Your task to perform on an android device: turn on notifications settings in the gmail app Image 0: 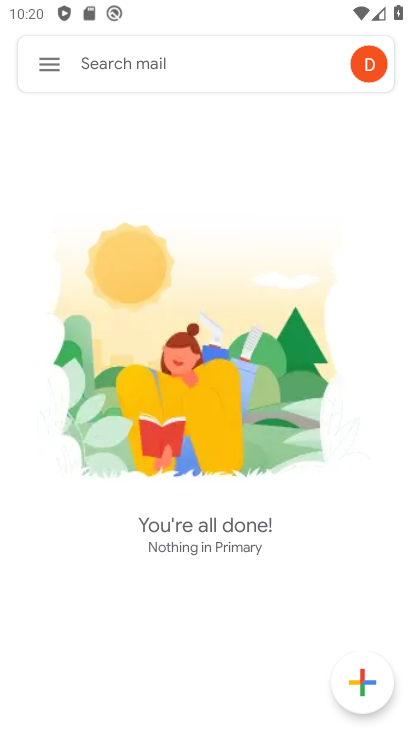
Step 0: click (61, 68)
Your task to perform on an android device: turn on notifications settings in the gmail app Image 1: 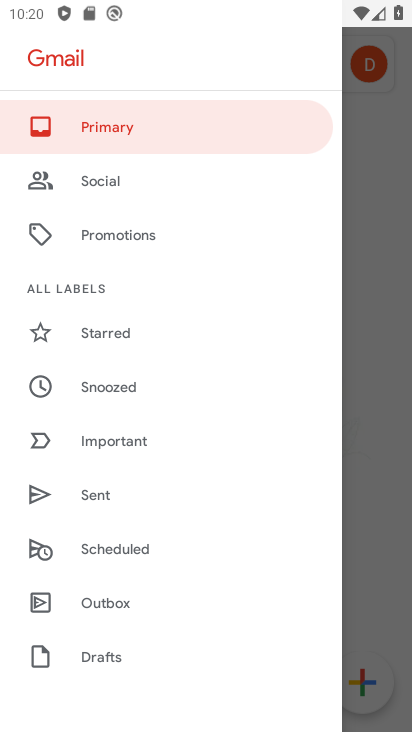
Step 1: drag from (238, 519) to (241, 445)
Your task to perform on an android device: turn on notifications settings in the gmail app Image 2: 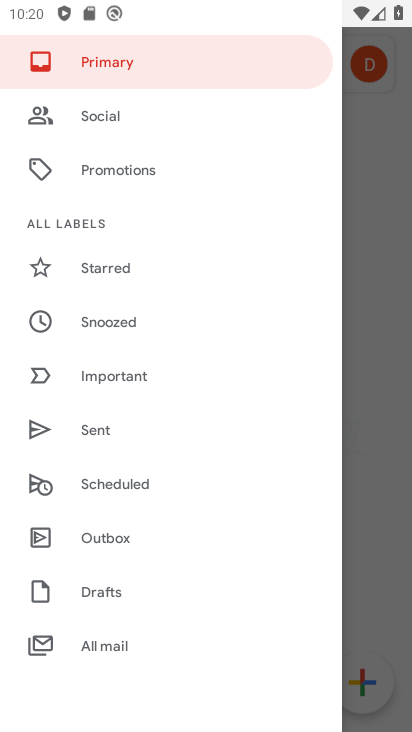
Step 2: drag from (247, 529) to (247, 456)
Your task to perform on an android device: turn on notifications settings in the gmail app Image 3: 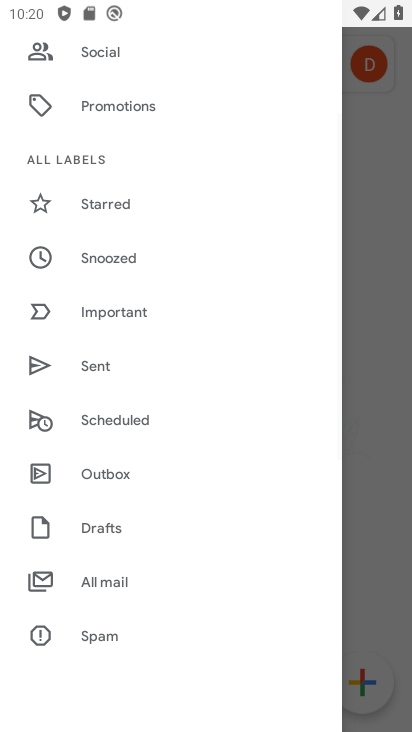
Step 3: drag from (247, 539) to (244, 459)
Your task to perform on an android device: turn on notifications settings in the gmail app Image 4: 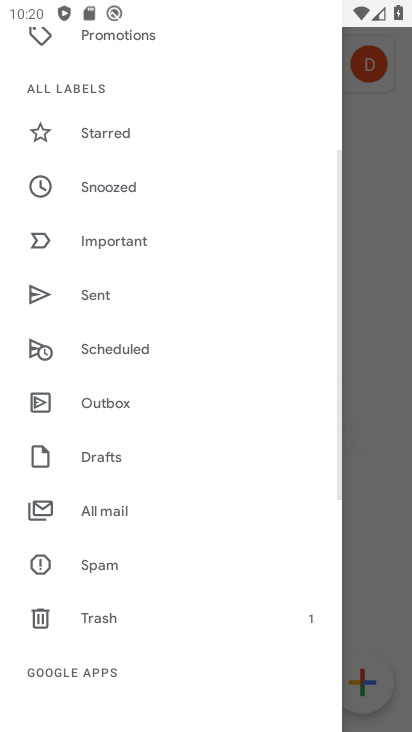
Step 4: drag from (242, 562) to (242, 494)
Your task to perform on an android device: turn on notifications settings in the gmail app Image 5: 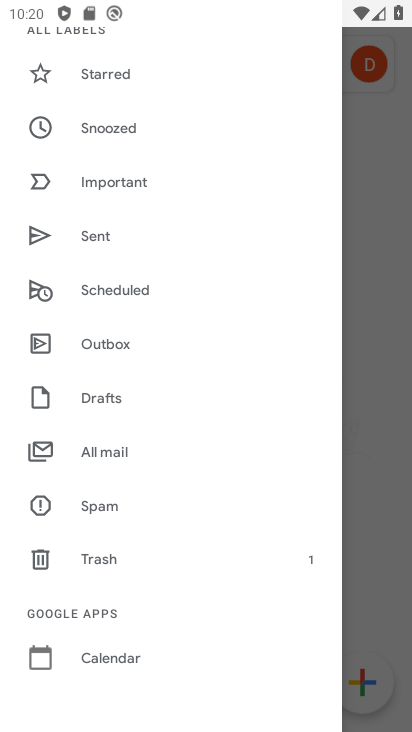
Step 5: drag from (244, 598) to (237, 499)
Your task to perform on an android device: turn on notifications settings in the gmail app Image 6: 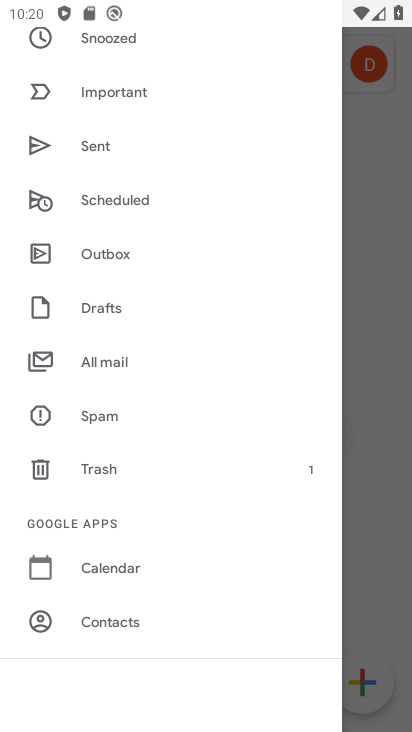
Step 6: drag from (241, 568) to (235, 497)
Your task to perform on an android device: turn on notifications settings in the gmail app Image 7: 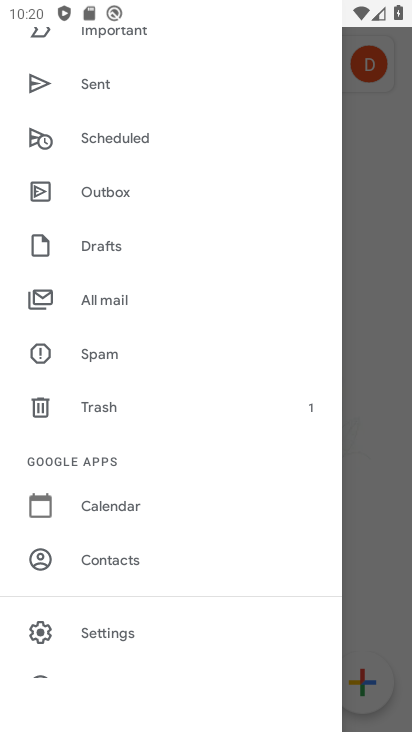
Step 7: drag from (245, 598) to (243, 498)
Your task to perform on an android device: turn on notifications settings in the gmail app Image 8: 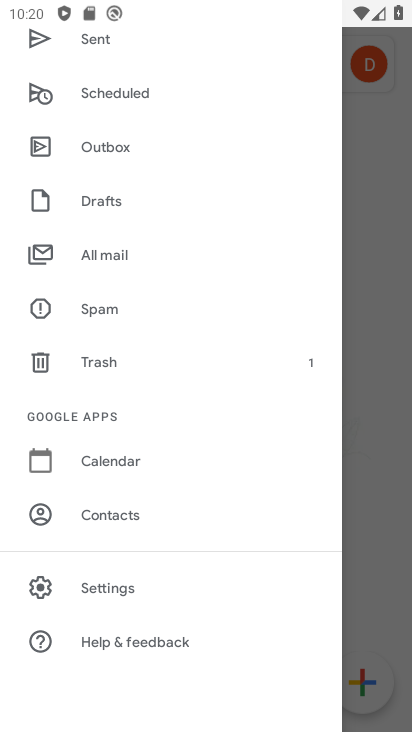
Step 8: click (185, 583)
Your task to perform on an android device: turn on notifications settings in the gmail app Image 9: 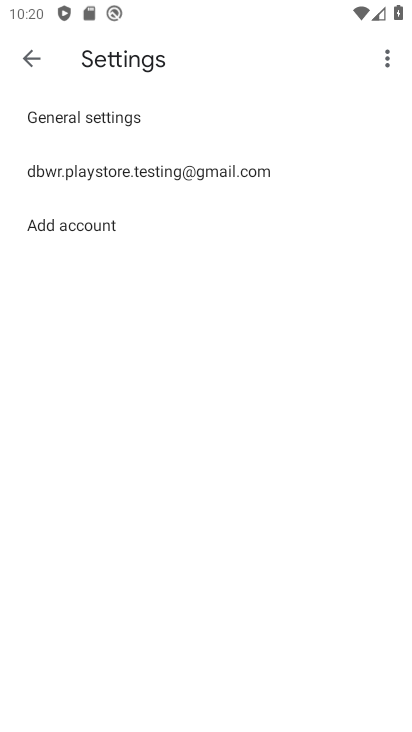
Step 9: click (223, 184)
Your task to perform on an android device: turn on notifications settings in the gmail app Image 10: 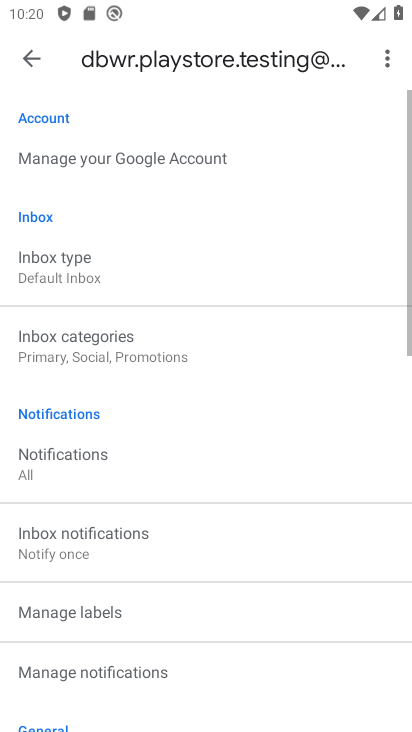
Step 10: drag from (280, 514) to (280, 462)
Your task to perform on an android device: turn on notifications settings in the gmail app Image 11: 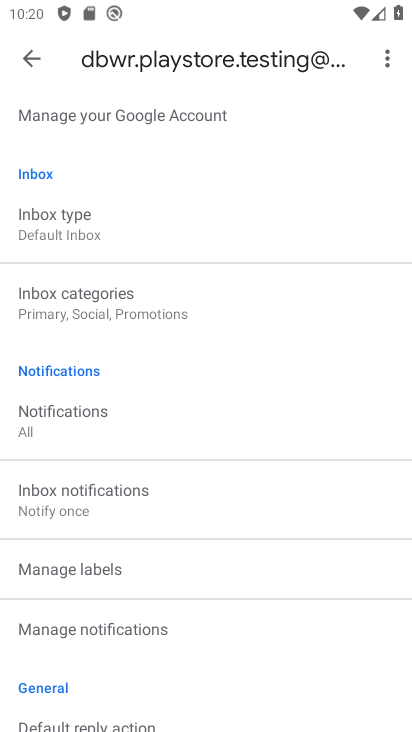
Step 11: drag from (289, 575) to (289, 499)
Your task to perform on an android device: turn on notifications settings in the gmail app Image 12: 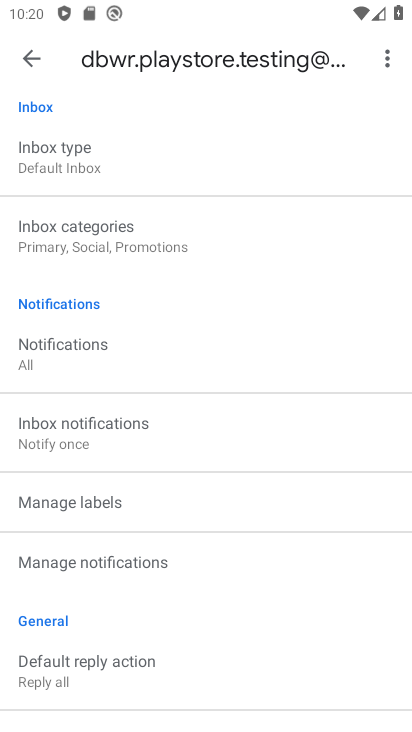
Step 12: drag from (299, 593) to (291, 494)
Your task to perform on an android device: turn on notifications settings in the gmail app Image 13: 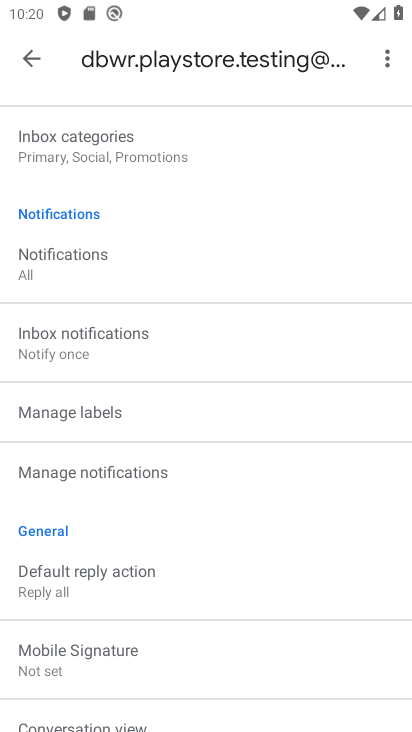
Step 13: drag from (290, 586) to (291, 525)
Your task to perform on an android device: turn on notifications settings in the gmail app Image 14: 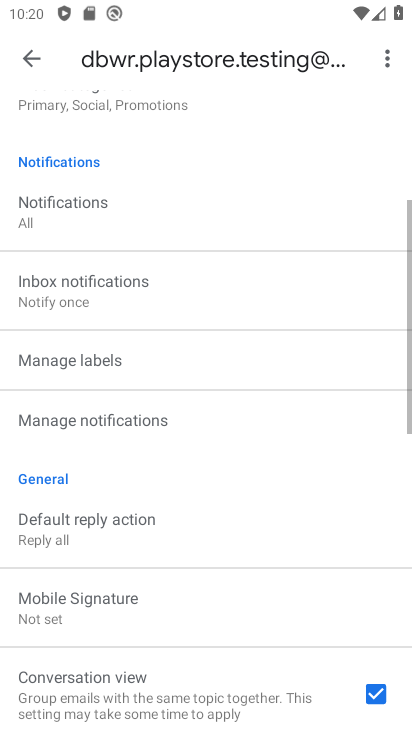
Step 14: drag from (299, 599) to (290, 510)
Your task to perform on an android device: turn on notifications settings in the gmail app Image 15: 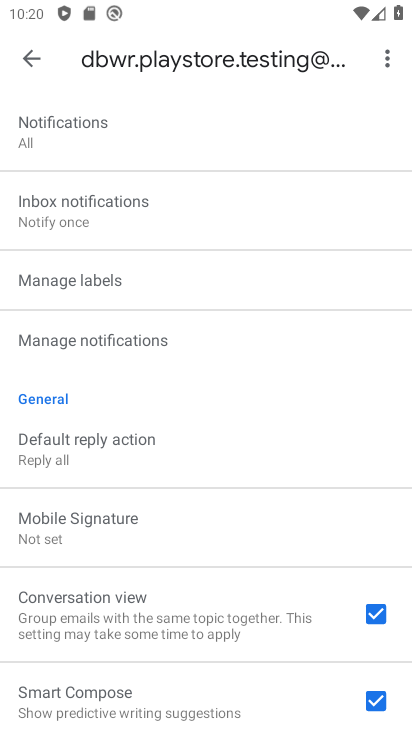
Step 15: click (254, 347)
Your task to perform on an android device: turn on notifications settings in the gmail app Image 16: 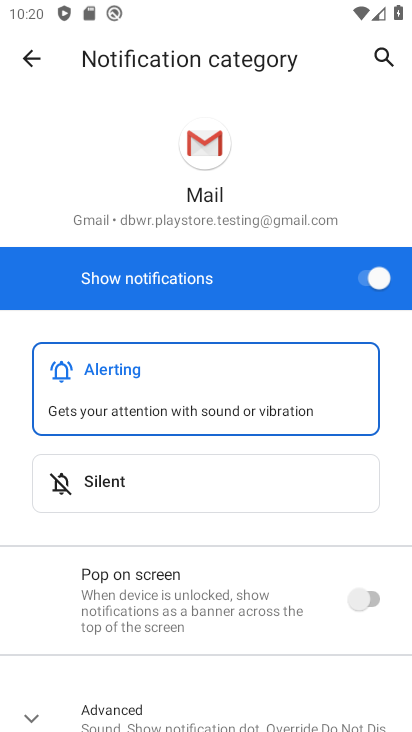
Step 16: task complete